Your task to perform on an android device: check google app version Image 0: 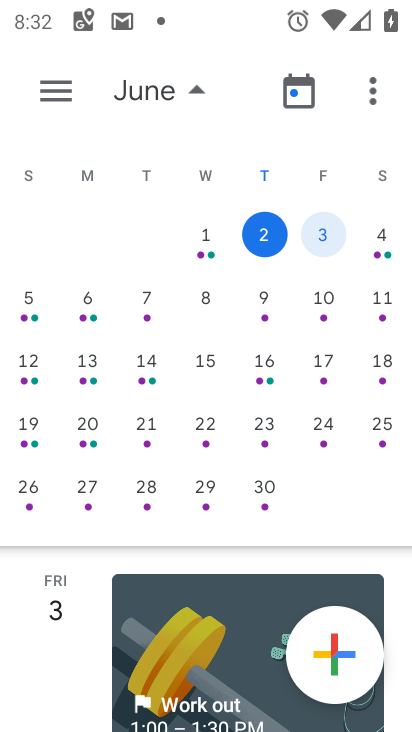
Step 0: press home button
Your task to perform on an android device: check google app version Image 1: 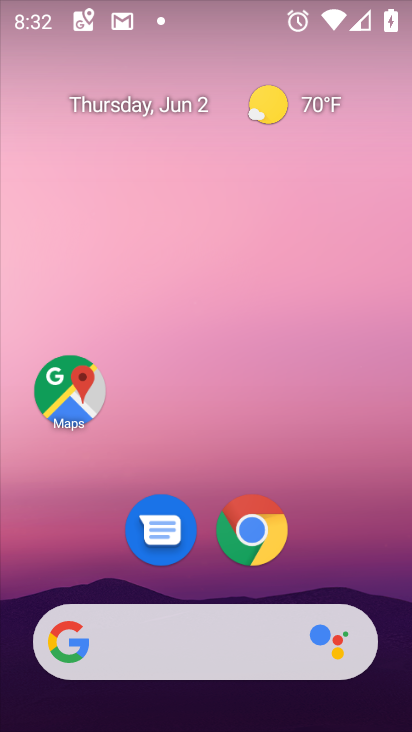
Step 1: drag from (188, 614) to (154, 69)
Your task to perform on an android device: check google app version Image 2: 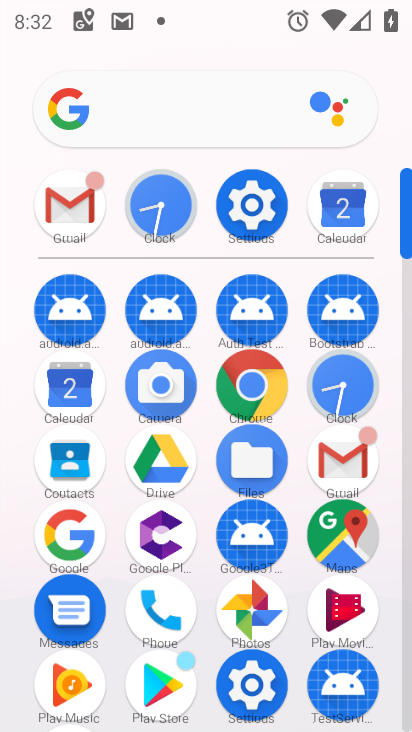
Step 2: click (79, 536)
Your task to perform on an android device: check google app version Image 3: 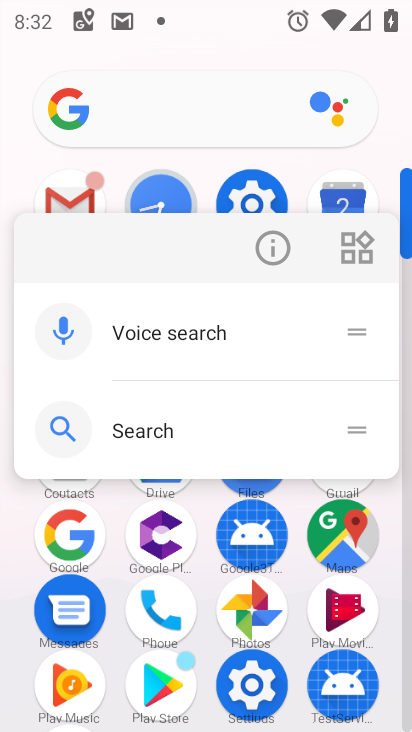
Step 3: click (276, 236)
Your task to perform on an android device: check google app version Image 4: 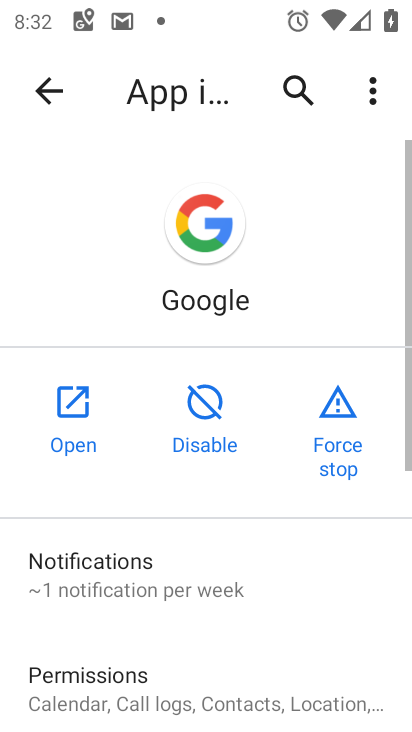
Step 4: drag from (164, 656) to (153, 211)
Your task to perform on an android device: check google app version Image 5: 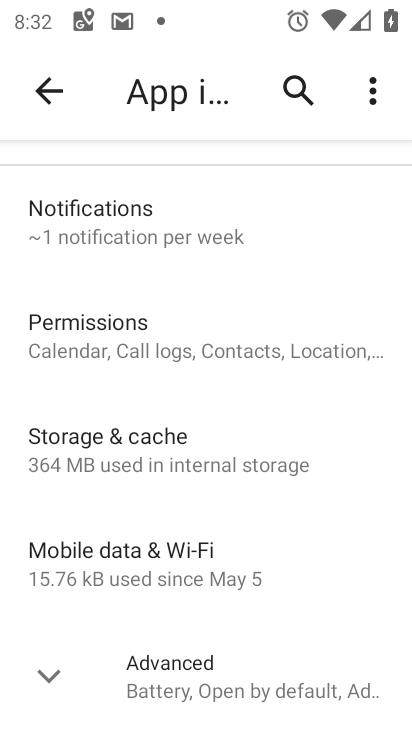
Step 5: click (161, 674)
Your task to perform on an android device: check google app version Image 6: 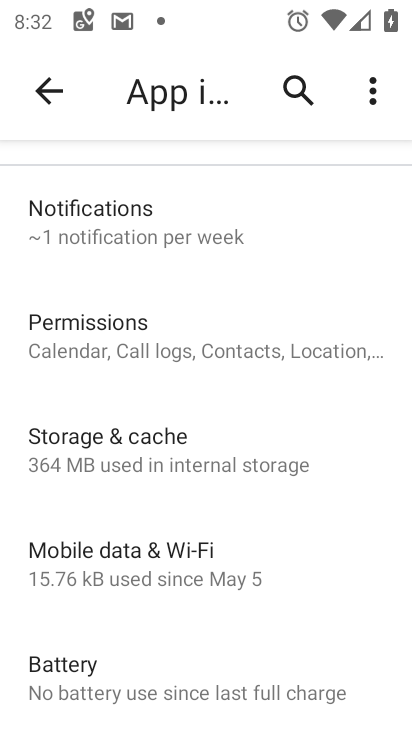
Step 6: task complete